Your task to perform on an android device: open app "Facebook Lite" (install if not already installed), go to login, and select forgot password Image 0: 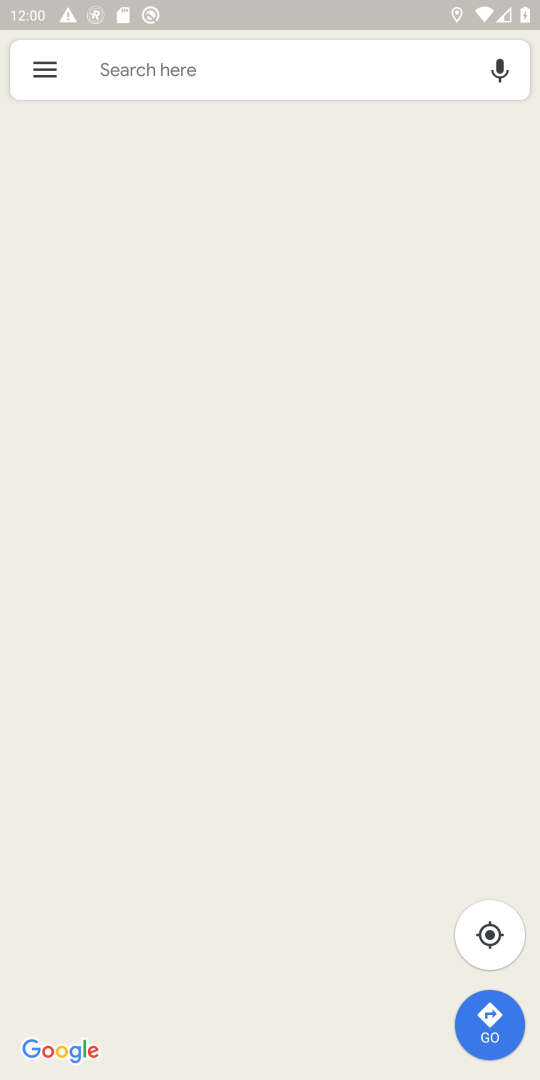
Step 0: click (56, 133)
Your task to perform on an android device: open app "Facebook Lite" (install if not already installed), go to login, and select forgot password Image 1: 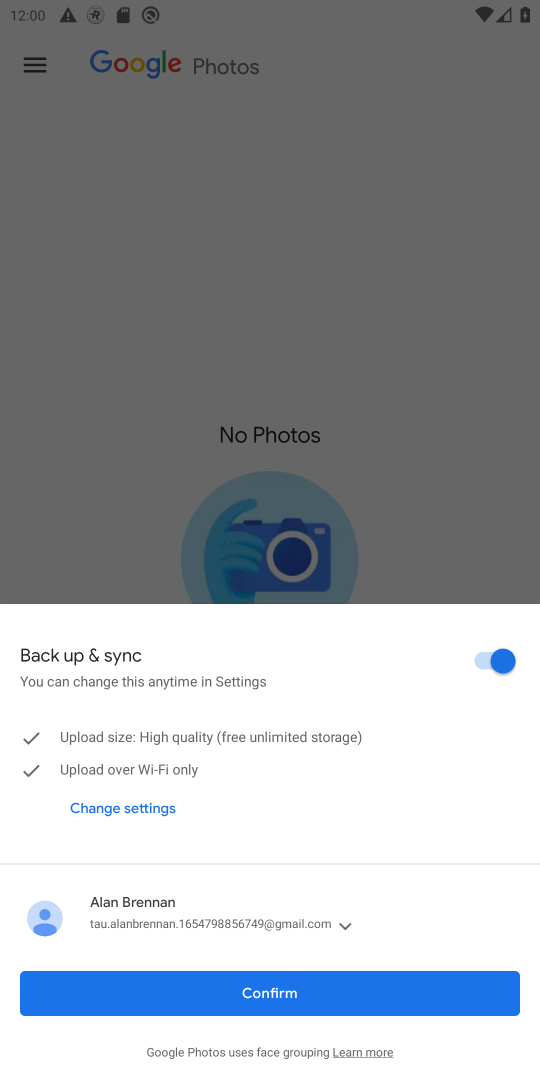
Step 1: click (27, 67)
Your task to perform on an android device: open app "Facebook Lite" (install if not already installed), go to login, and select forgot password Image 2: 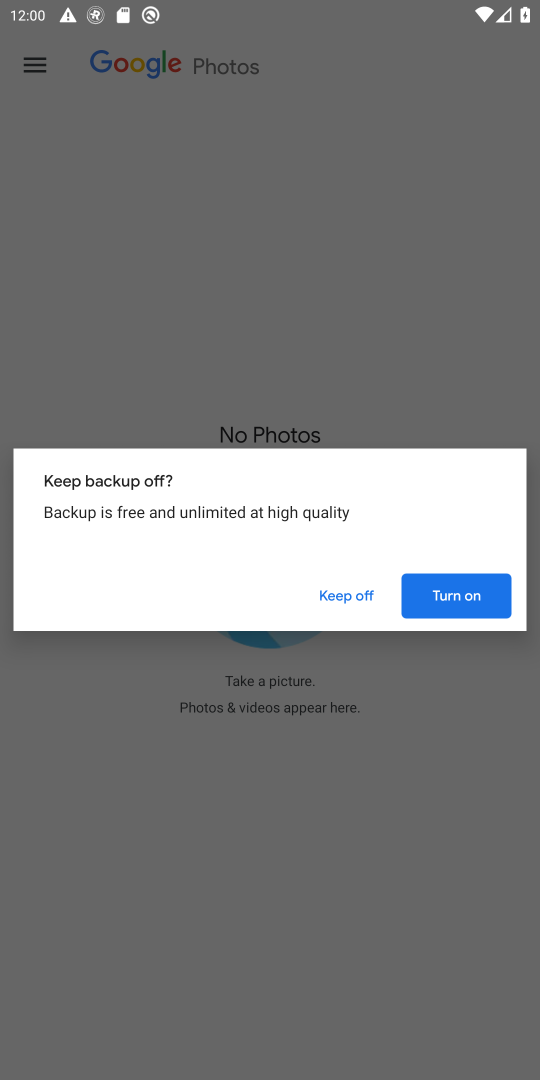
Step 2: press home button
Your task to perform on an android device: open app "Facebook Lite" (install if not already installed), go to login, and select forgot password Image 3: 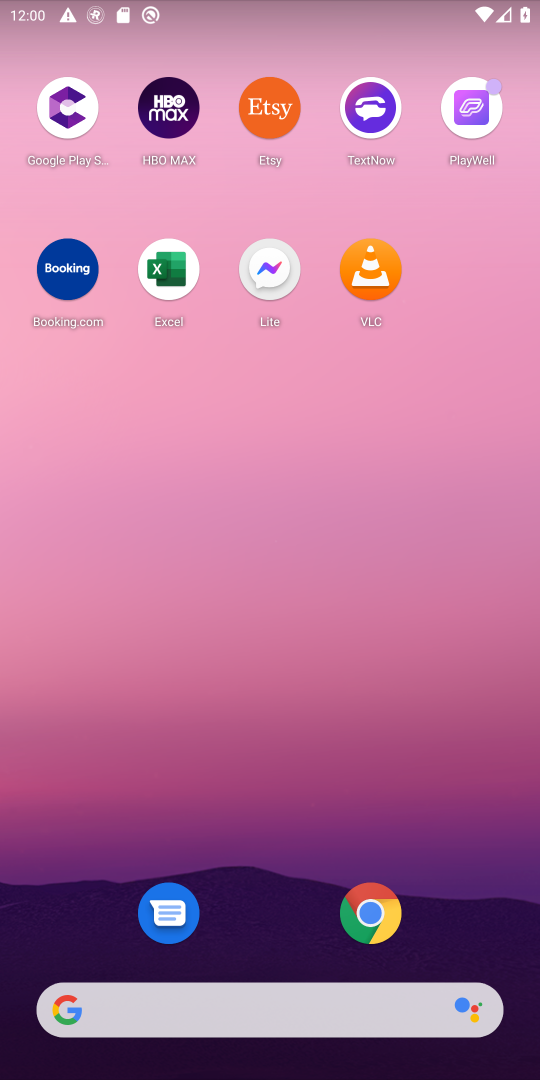
Step 3: drag from (340, 986) to (328, 289)
Your task to perform on an android device: open app "Facebook Lite" (install if not already installed), go to login, and select forgot password Image 4: 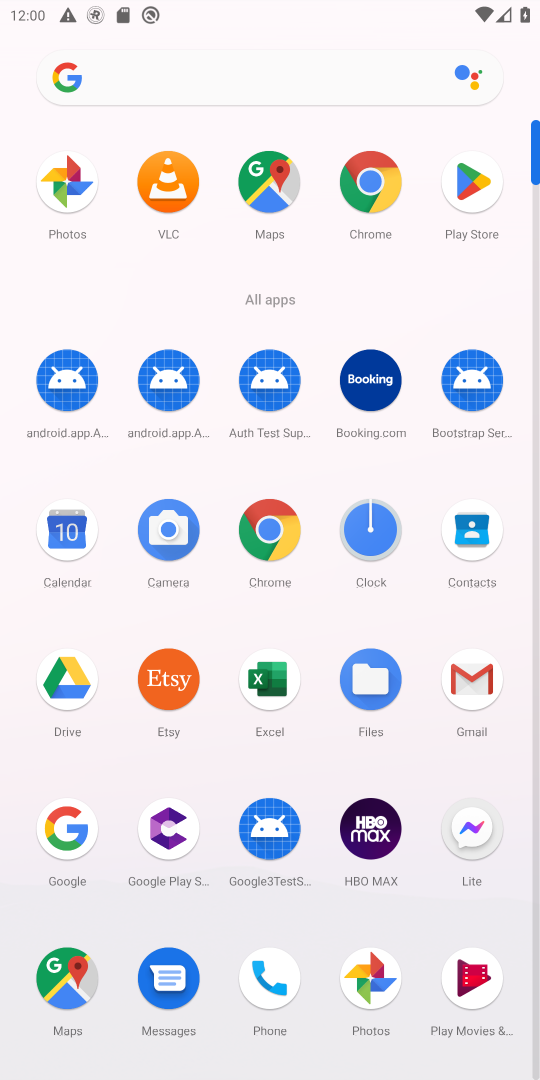
Step 4: click (462, 195)
Your task to perform on an android device: open app "Facebook Lite" (install if not already installed), go to login, and select forgot password Image 5: 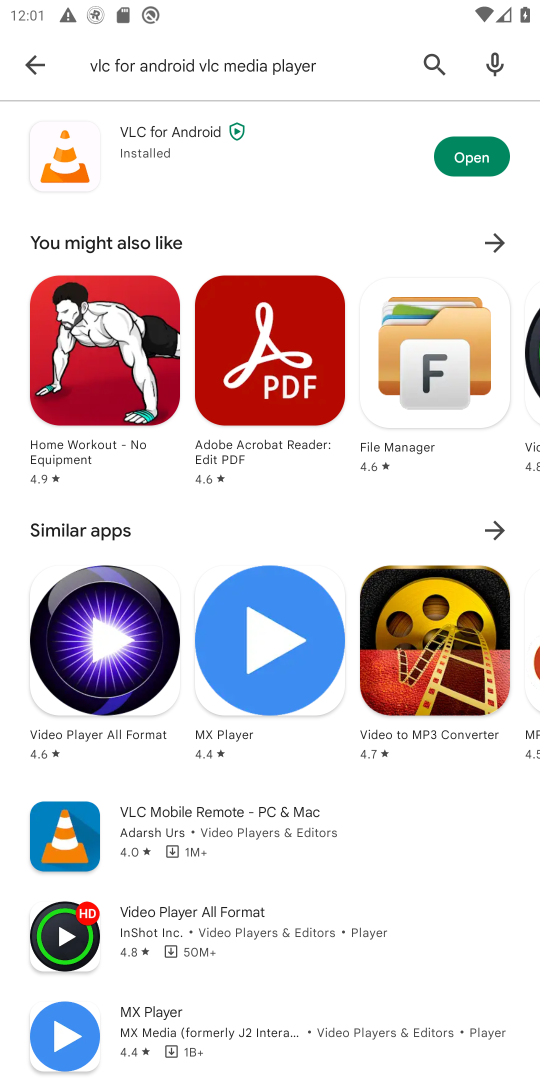
Step 5: click (30, 52)
Your task to perform on an android device: open app "Facebook Lite" (install if not already installed), go to login, and select forgot password Image 6: 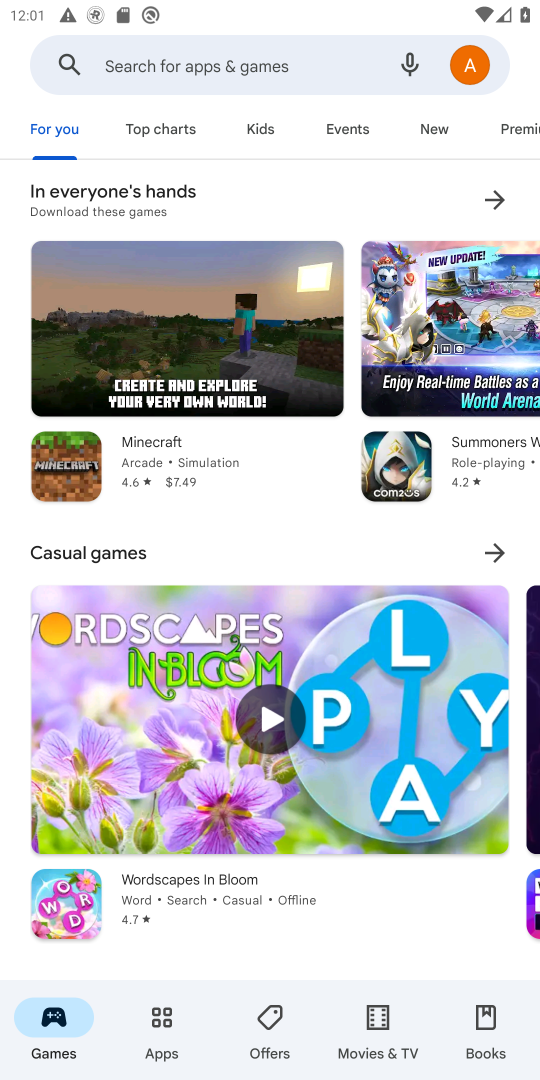
Step 6: click (201, 60)
Your task to perform on an android device: open app "Facebook Lite" (install if not already installed), go to login, and select forgot password Image 7: 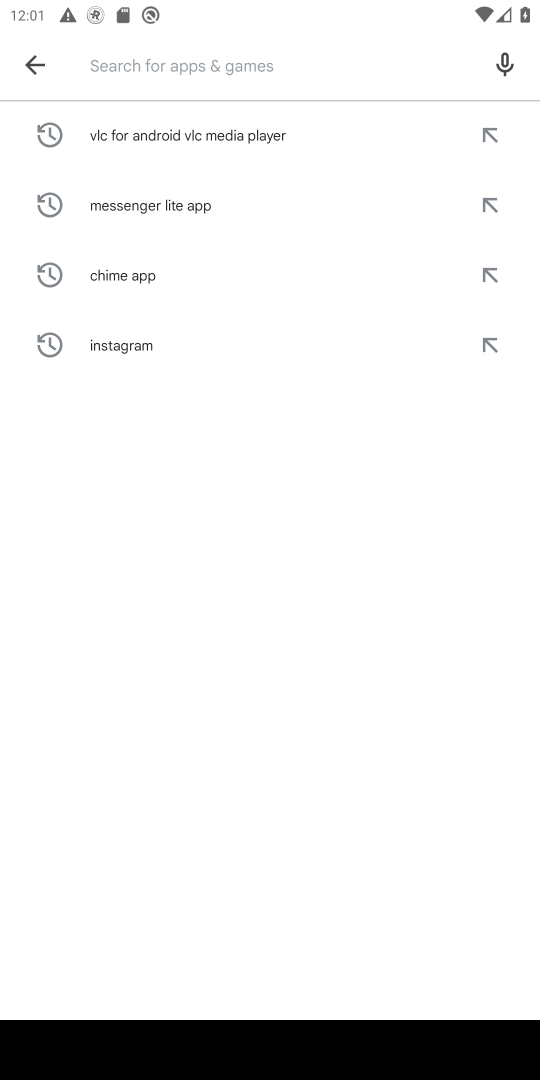
Step 7: type "facebook"
Your task to perform on an android device: open app "Facebook Lite" (install if not already installed), go to login, and select forgot password Image 8: 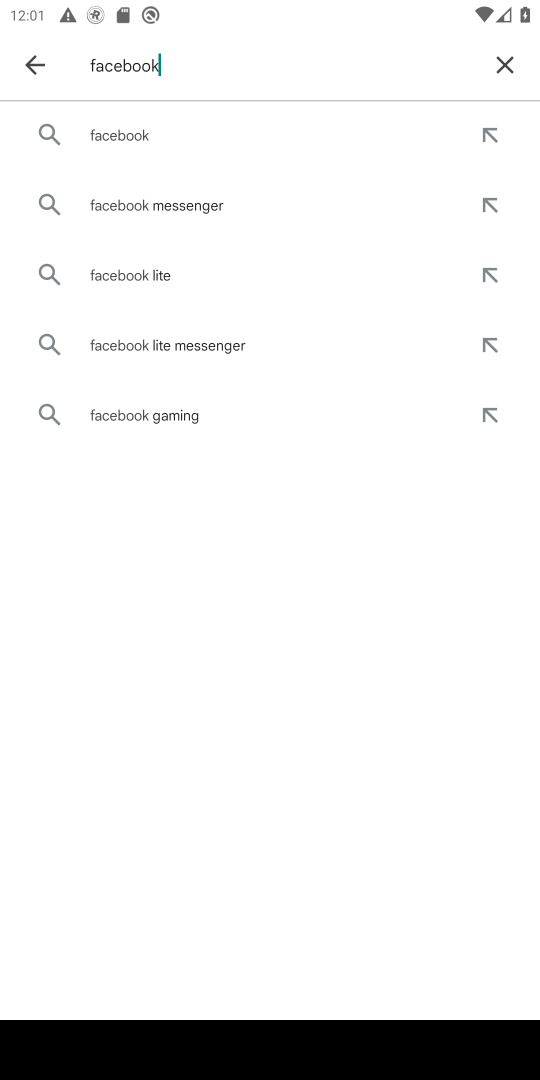
Step 8: click (161, 263)
Your task to perform on an android device: open app "Facebook Lite" (install if not already installed), go to login, and select forgot password Image 9: 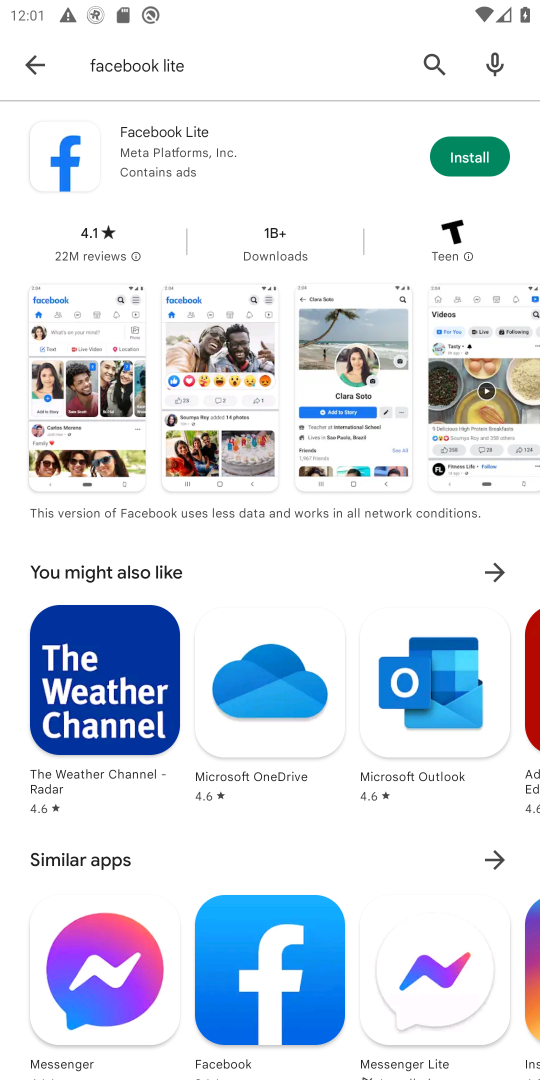
Step 9: click (465, 167)
Your task to perform on an android device: open app "Facebook Lite" (install if not already installed), go to login, and select forgot password Image 10: 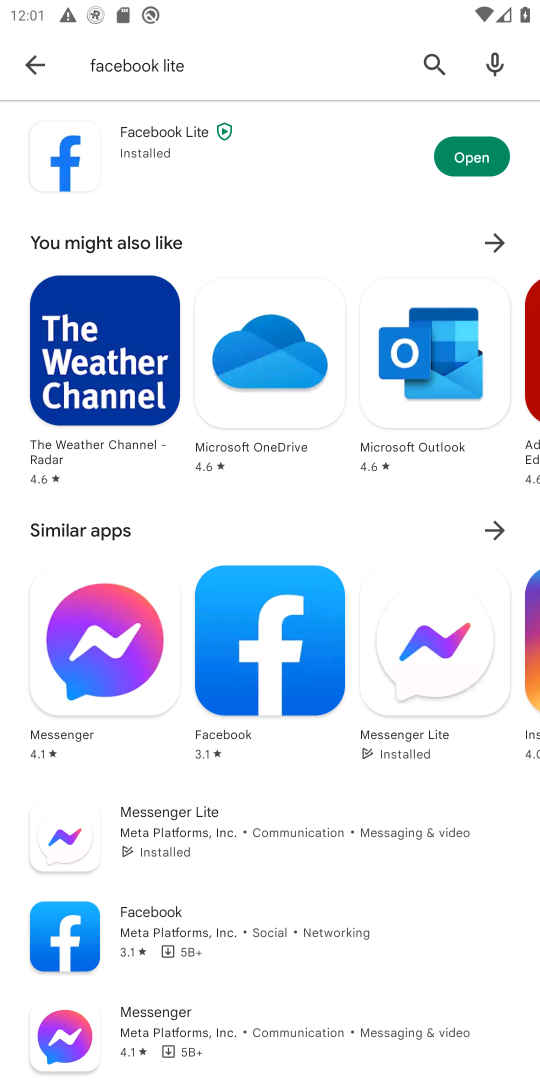
Step 10: click (484, 166)
Your task to perform on an android device: open app "Facebook Lite" (install if not already installed), go to login, and select forgot password Image 11: 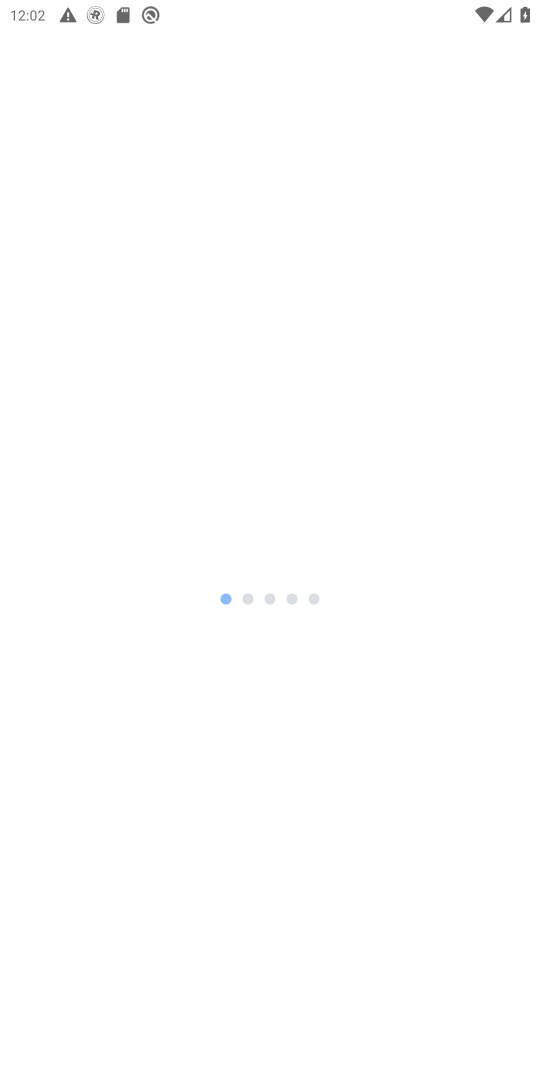
Step 11: task complete